Your task to perform on an android device: add a contact in the contacts app Image 0: 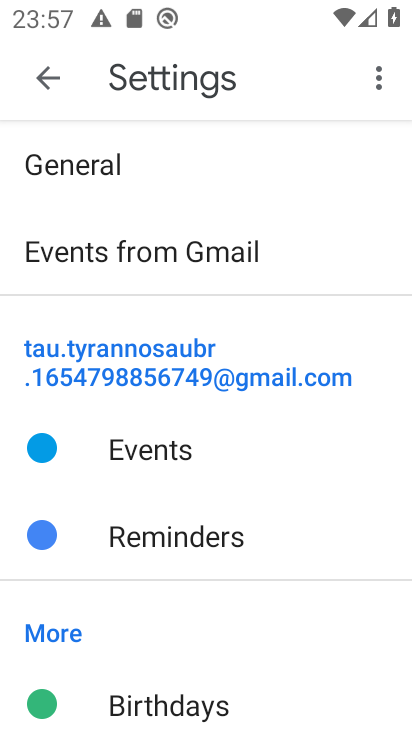
Step 0: press home button
Your task to perform on an android device: add a contact in the contacts app Image 1: 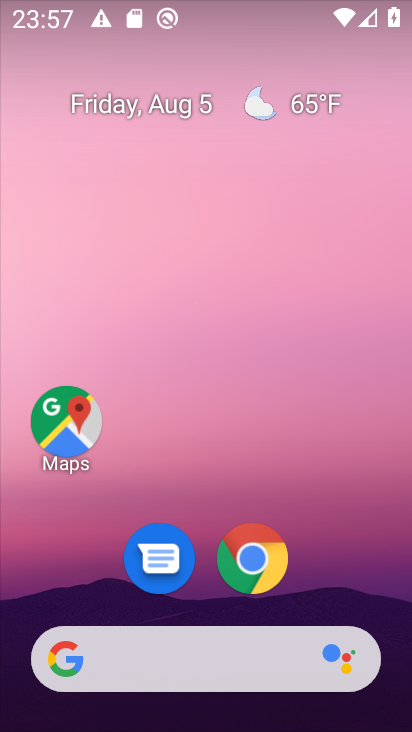
Step 1: drag from (370, 589) to (375, 314)
Your task to perform on an android device: add a contact in the contacts app Image 2: 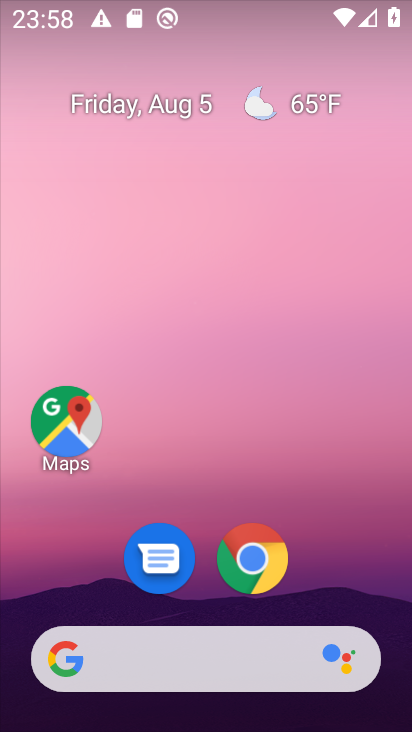
Step 2: drag from (373, 593) to (375, 349)
Your task to perform on an android device: add a contact in the contacts app Image 3: 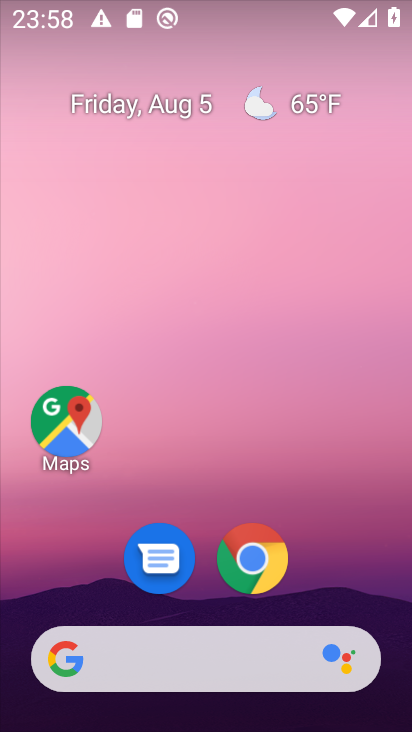
Step 3: drag from (347, 581) to (360, 136)
Your task to perform on an android device: add a contact in the contacts app Image 4: 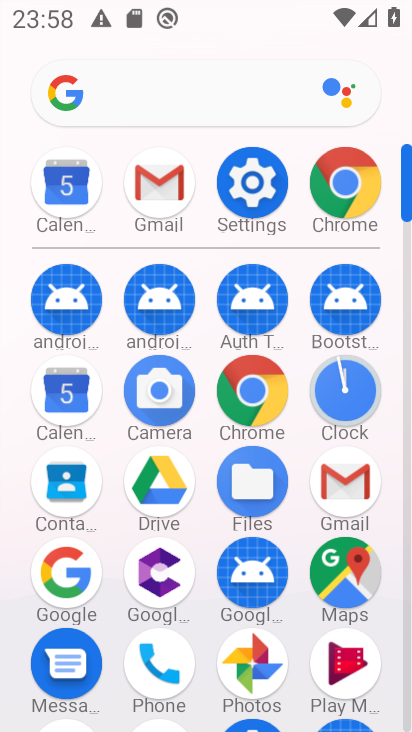
Step 4: click (74, 487)
Your task to perform on an android device: add a contact in the contacts app Image 5: 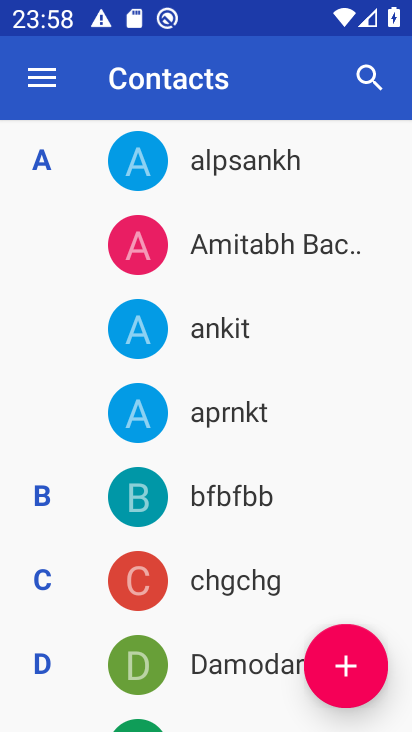
Step 5: drag from (323, 517) to (339, 363)
Your task to perform on an android device: add a contact in the contacts app Image 6: 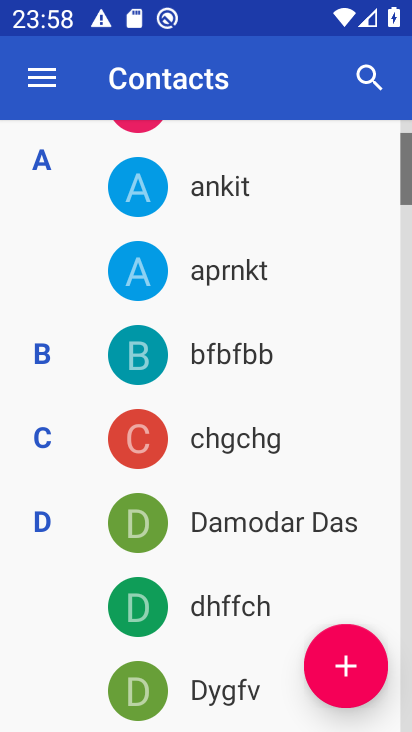
Step 6: click (356, 665)
Your task to perform on an android device: add a contact in the contacts app Image 7: 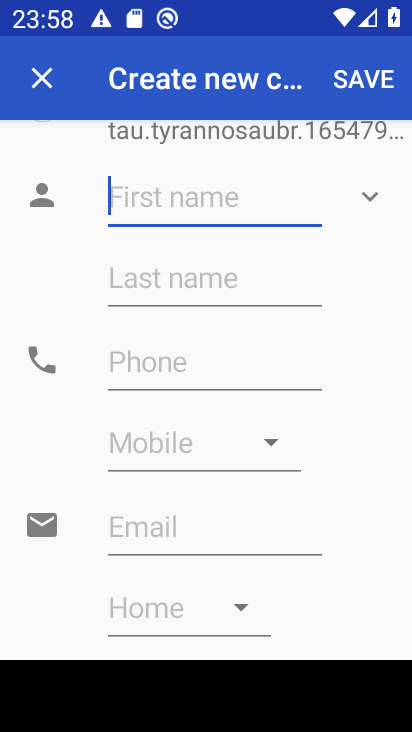
Step 7: click (217, 197)
Your task to perform on an android device: add a contact in the contacts app Image 8: 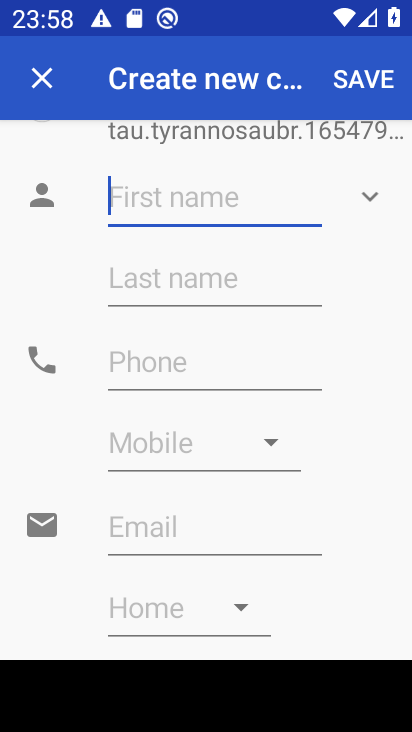
Step 8: type "me"
Your task to perform on an android device: add a contact in the contacts app Image 9: 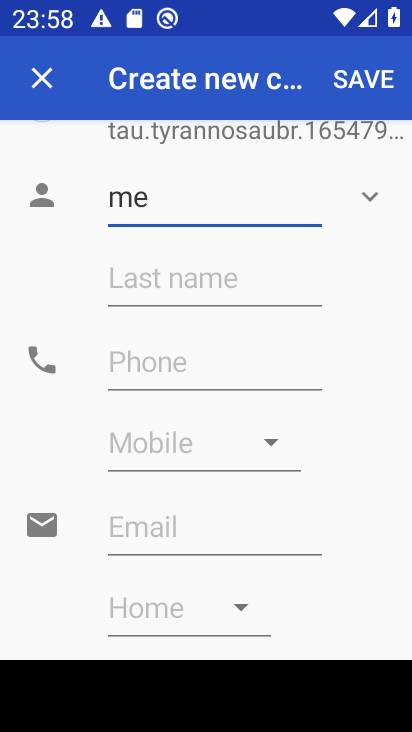
Step 9: click (210, 358)
Your task to perform on an android device: add a contact in the contacts app Image 10: 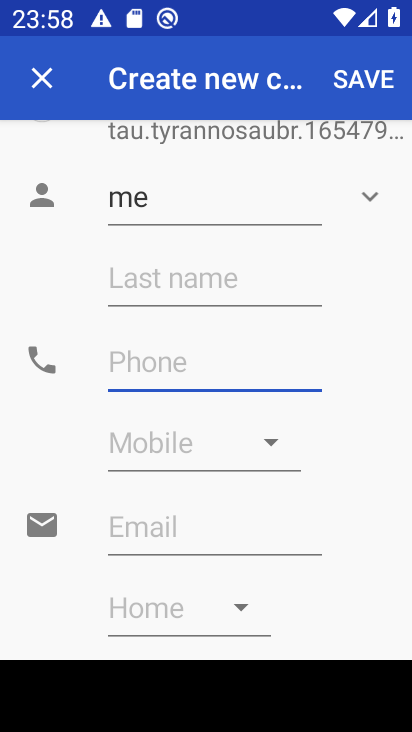
Step 10: type "123456789"
Your task to perform on an android device: add a contact in the contacts app Image 11: 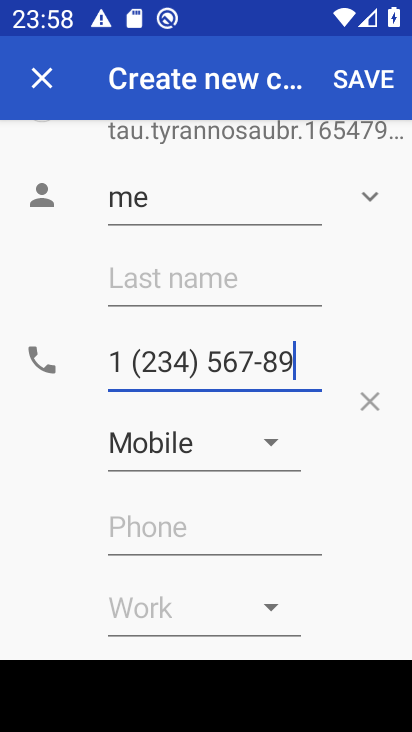
Step 11: click (390, 87)
Your task to perform on an android device: add a contact in the contacts app Image 12: 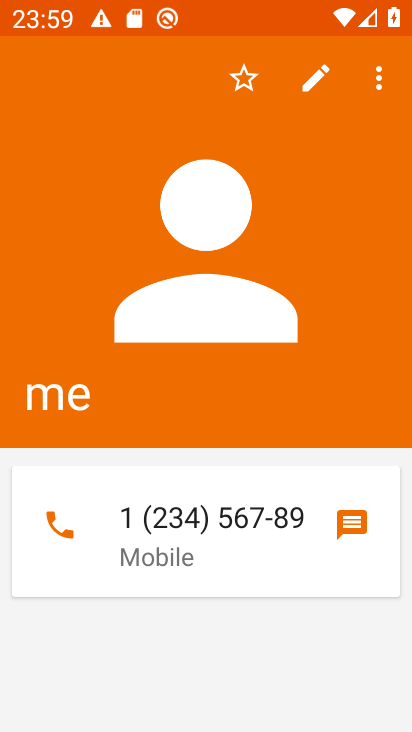
Step 12: task complete